Your task to perform on an android device: turn pop-ups on in chrome Image 0: 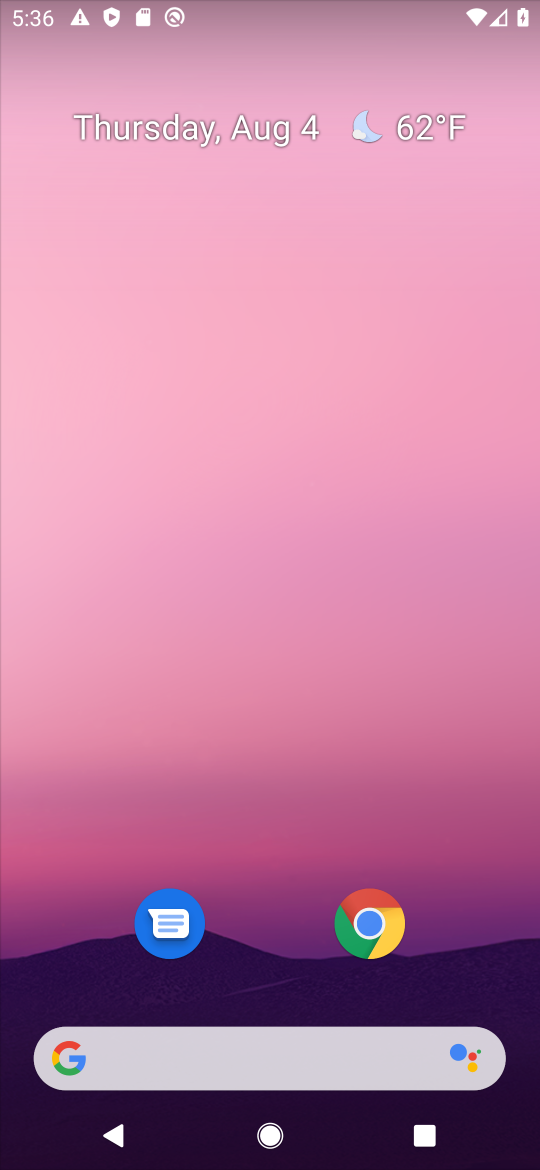
Step 0: click (459, 1006)
Your task to perform on an android device: turn pop-ups on in chrome Image 1: 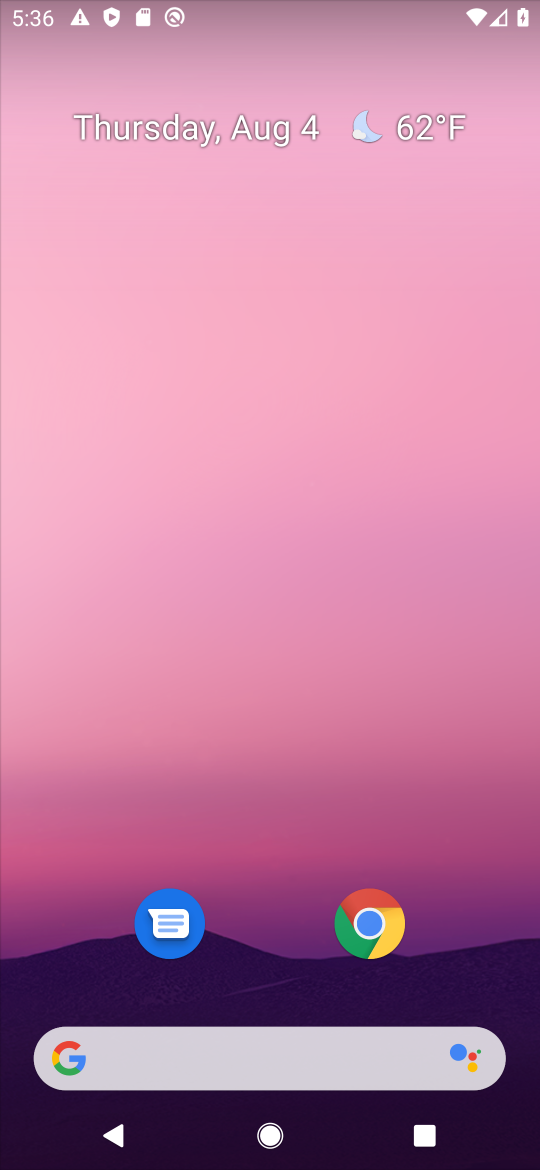
Step 1: click (375, 951)
Your task to perform on an android device: turn pop-ups on in chrome Image 2: 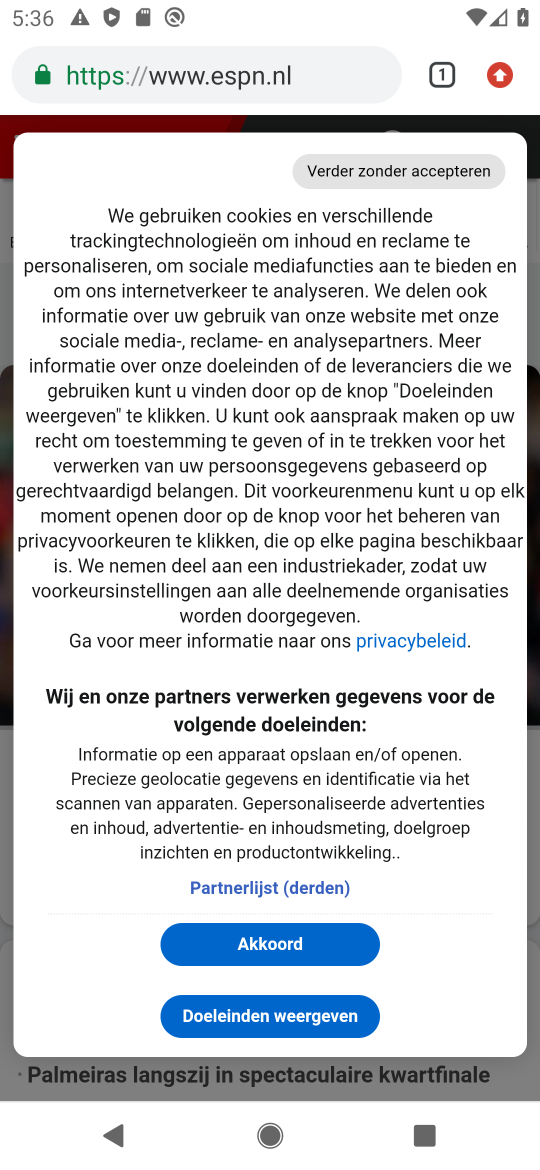
Step 2: press back button
Your task to perform on an android device: turn pop-ups on in chrome Image 3: 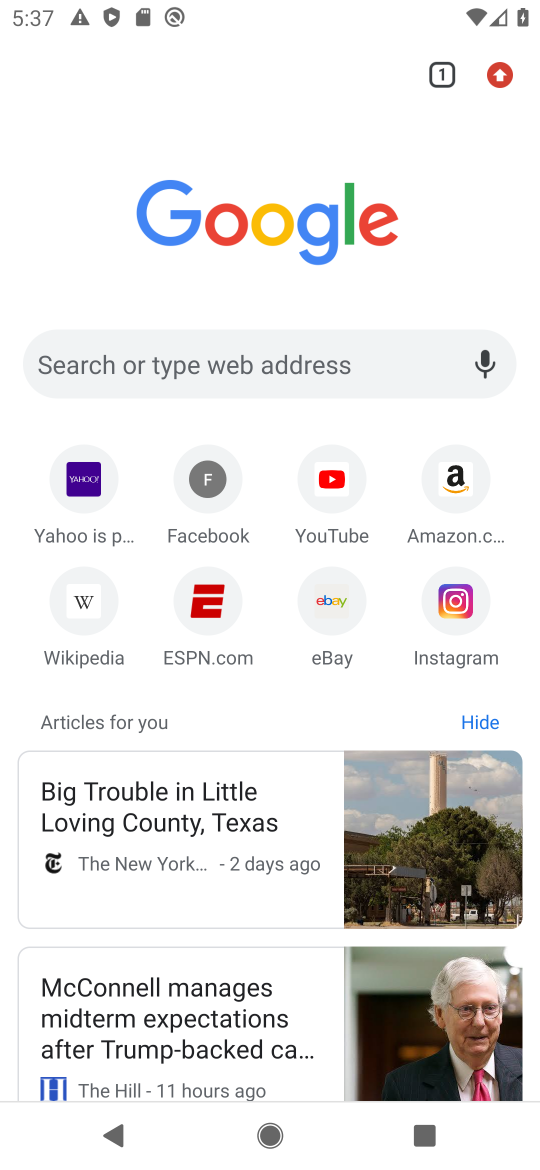
Step 3: click (495, 75)
Your task to perform on an android device: turn pop-ups on in chrome Image 4: 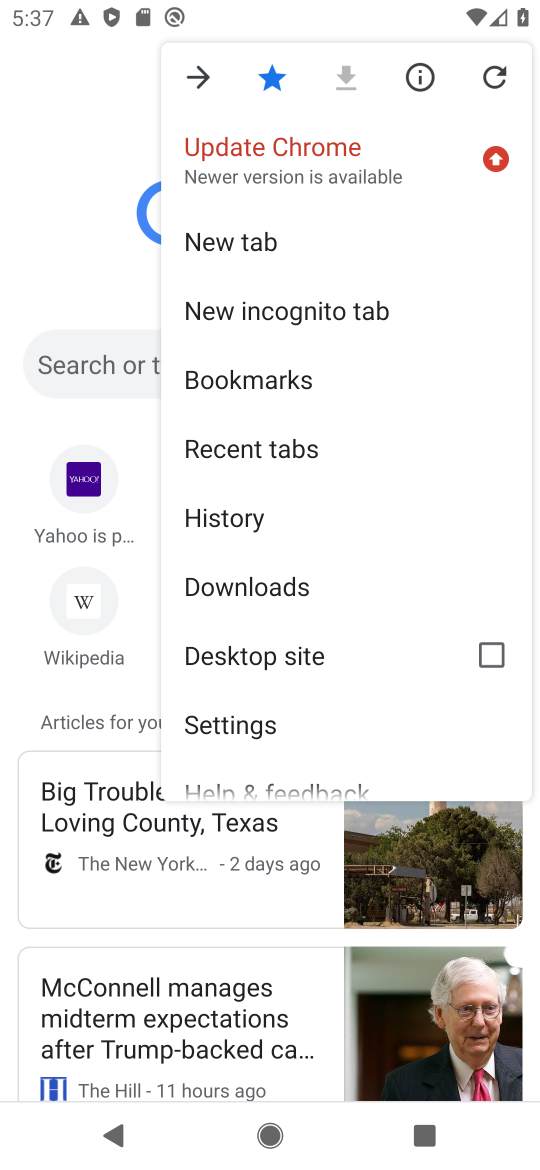
Step 4: click (254, 720)
Your task to perform on an android device: turn pop-ups on in chrome Image 5: 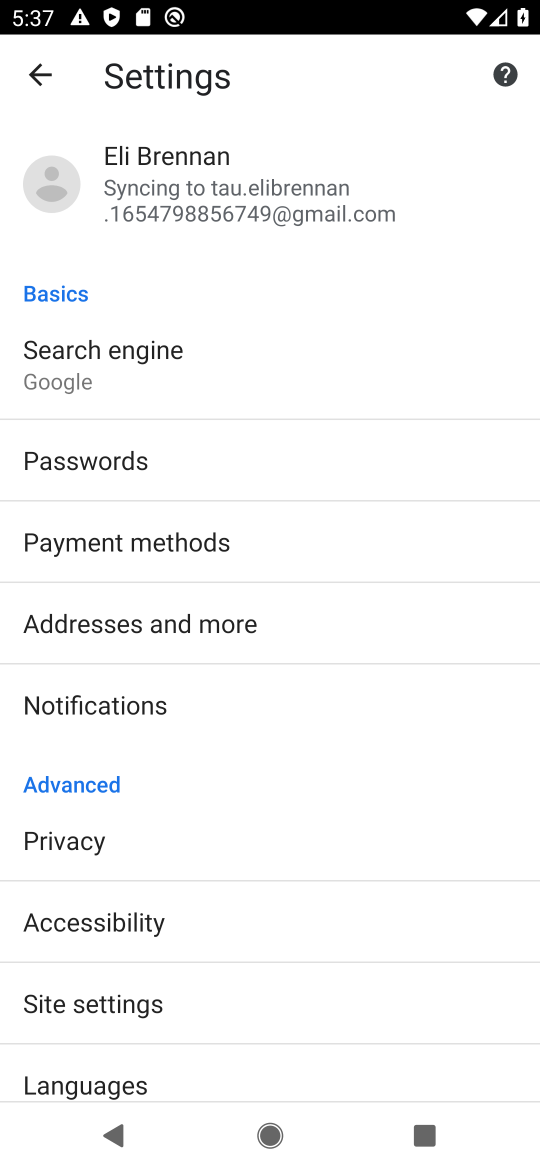
Step 5: click (137, 998)
Your task to perform on an android device: turn pop-ups on in chrome Image 6: 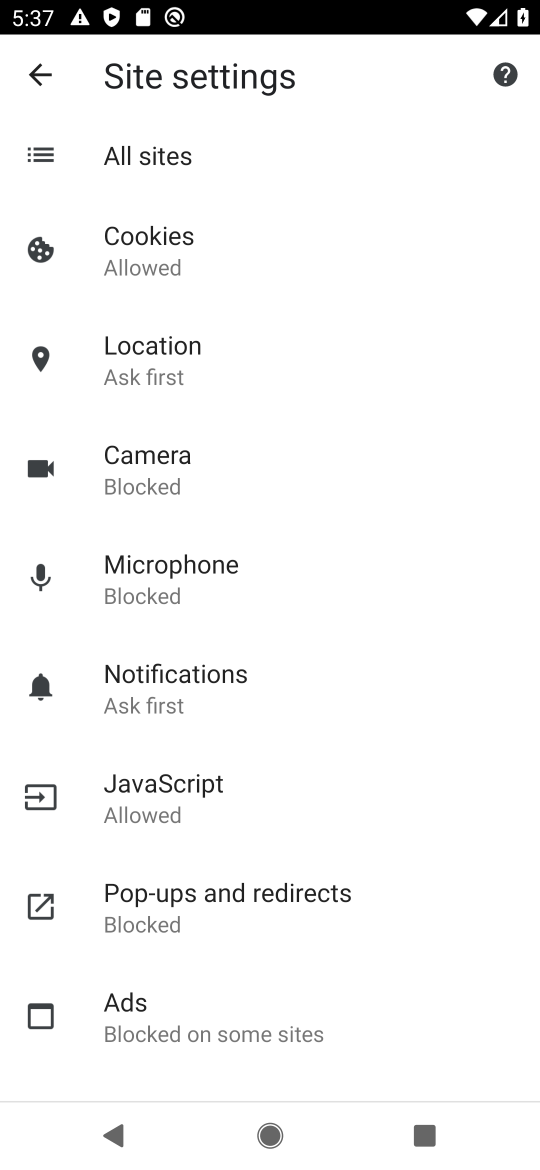
Step 6: click (235, 903)
Your task to perform on an android device: turn pop-ups on in chrome Image 7: 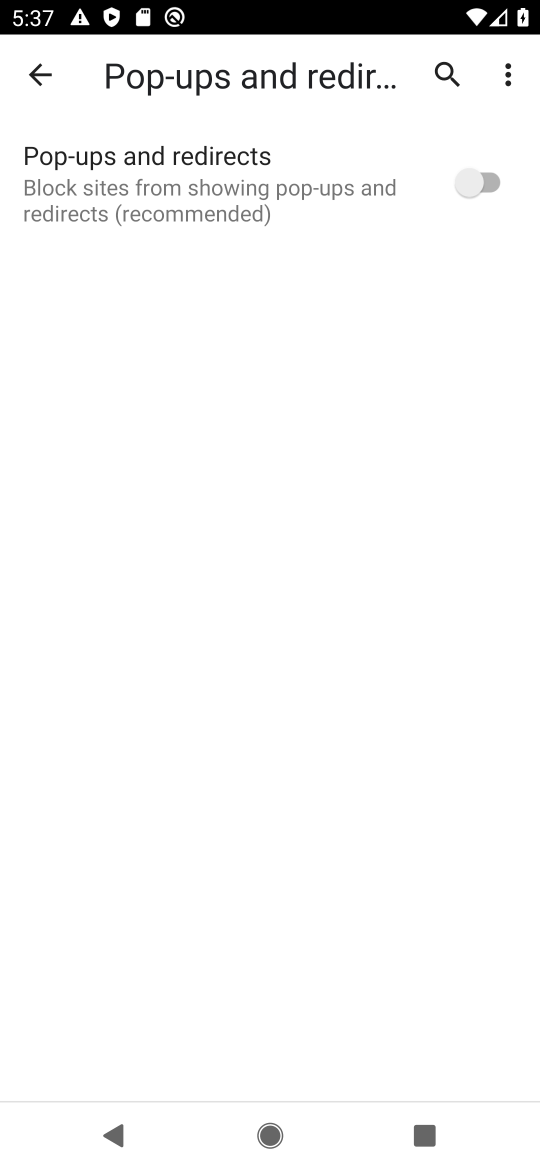
Step 7: click (480, 170)
Your task to perform on an android device: turn pop-ups on in chrome Image 8: 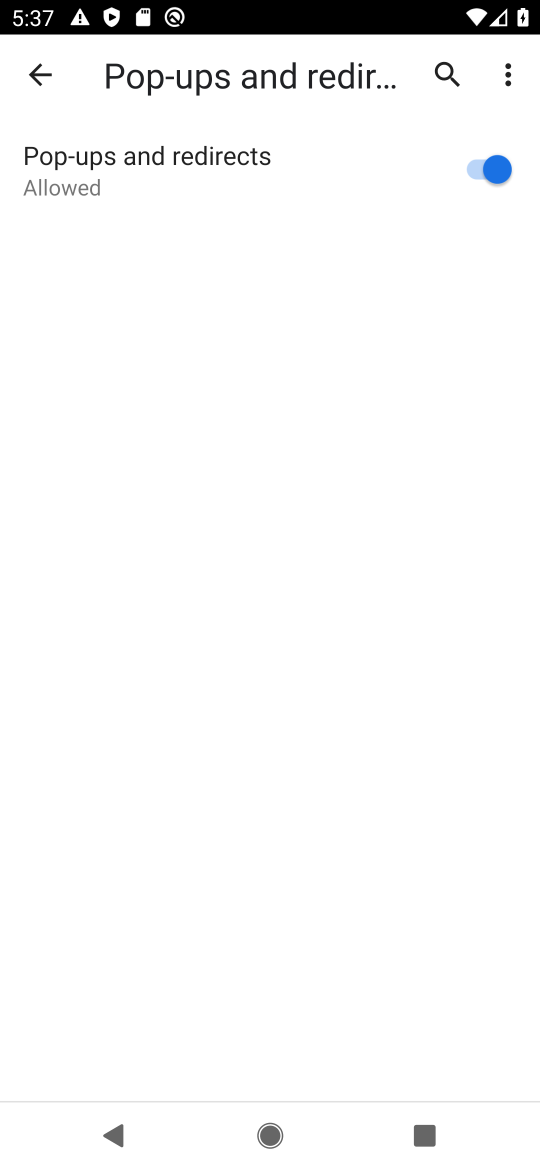
Step 8: task complete